Your task to perform on an android device: turn off javascript in the chrome app Image 0: 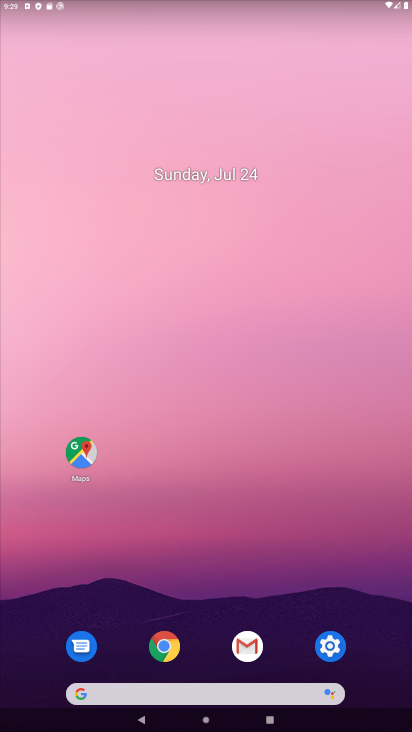
Step 0: click (180, 650)
Your task to perform on an android device: turn off javascript in the chrome app Image 1: 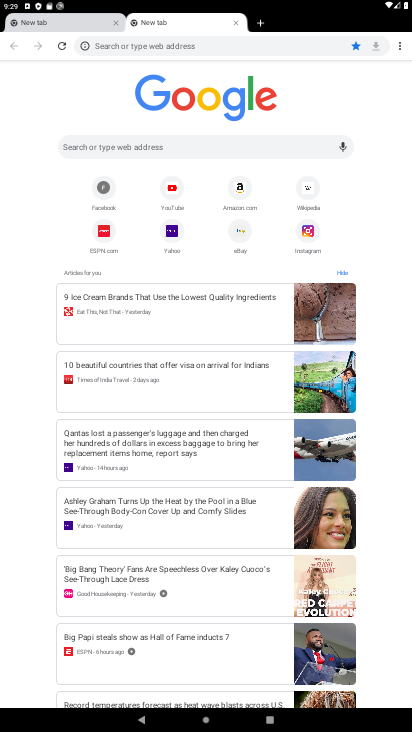
Step 1: click (394, 48)
Your task to perform on an android device: turn off javascript in the chrome app Image 2: 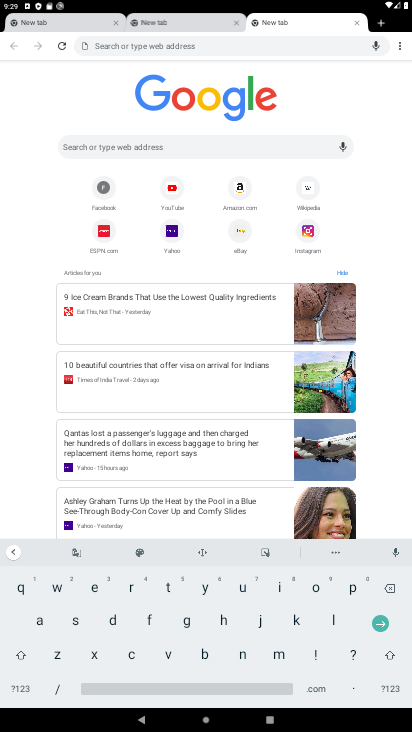
Step 2: click (402, 53)
Your task to perform on an android device: turn off javascript in the chrome app Image 3: 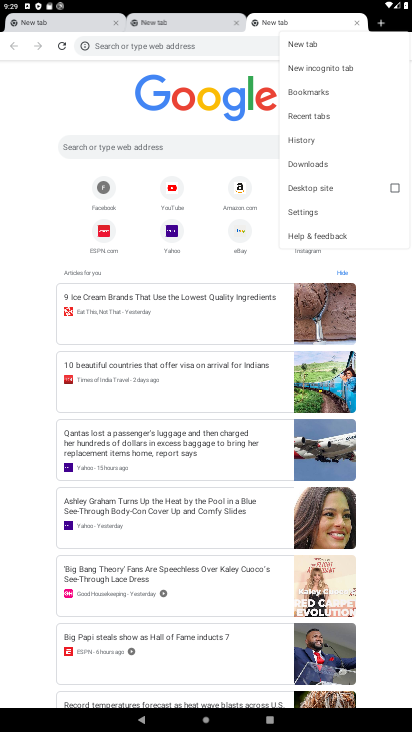
Step 3: click (320, 207)
Your task to perform on an android device: turn off javascript in the chrome app Image 4: 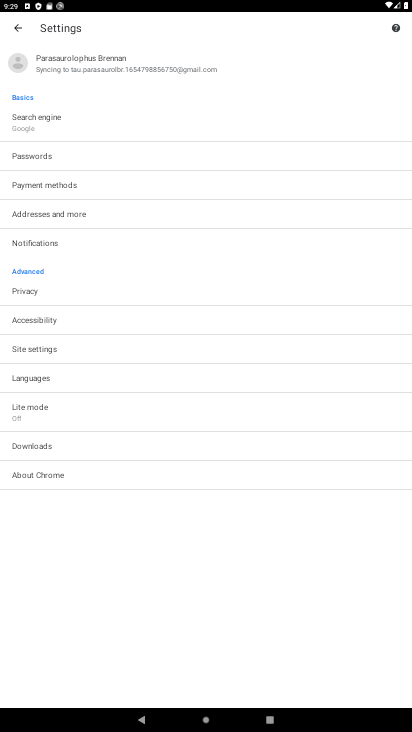
Step 4: click (57, 352)
Your task to perform on an android device: turn off javascript in the chrome app Image 5: 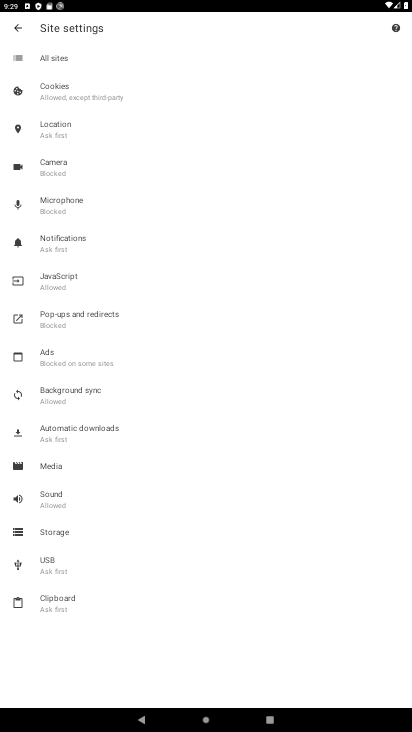
Step 5: click (74, 279)
Your task to perform on an android device: turn off javascript in the chrome app Image 6: 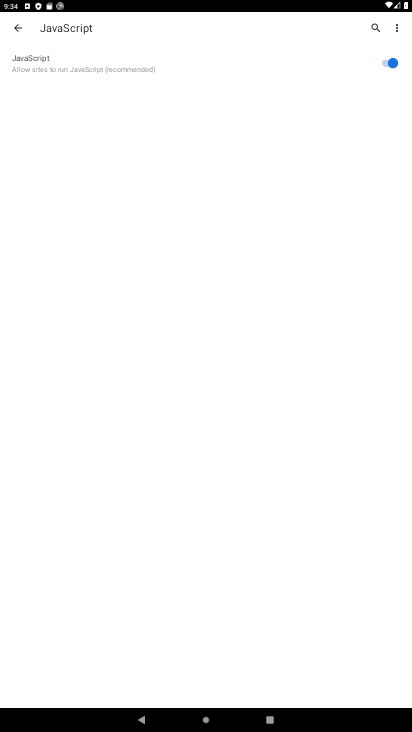
Step 6: task complete